Your task to perform on an android device: Open the phone app and click the voicemail tab. Image 0: 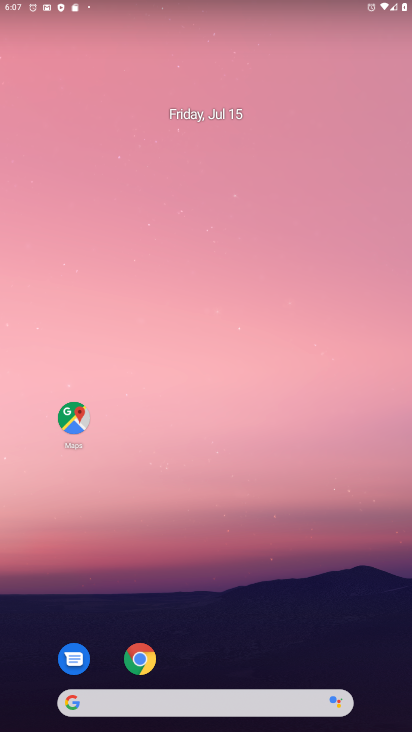
Step 0: drag from (378, 668) to (350, 61)
Your task to perform on an android device: Open the phone app and click the voicemail tab. Image 1: 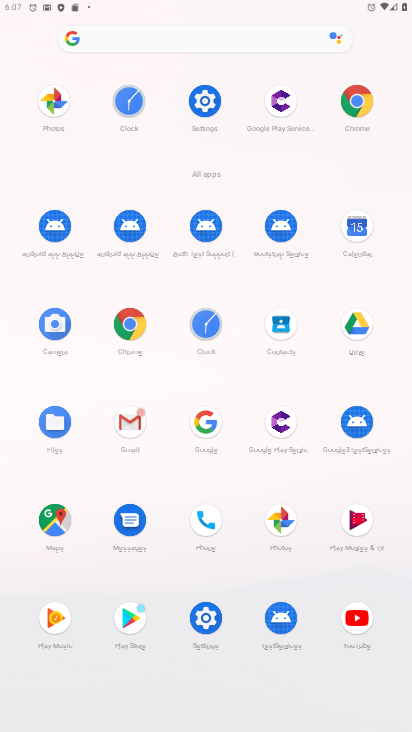
Step 1: click (205, 520)
Your task to perform on an android device: Open the phone app and click the voicemail tab. Image 2: 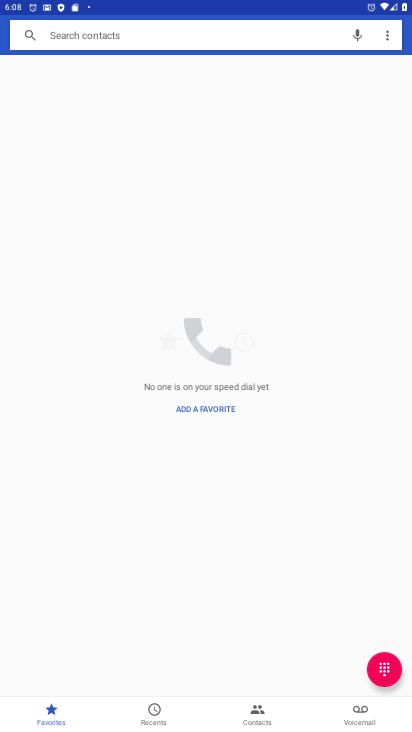
Step 2: click (361, 714)
Your task to perform on an android device: Open the phone app and click the voicemail tab. Image 3: 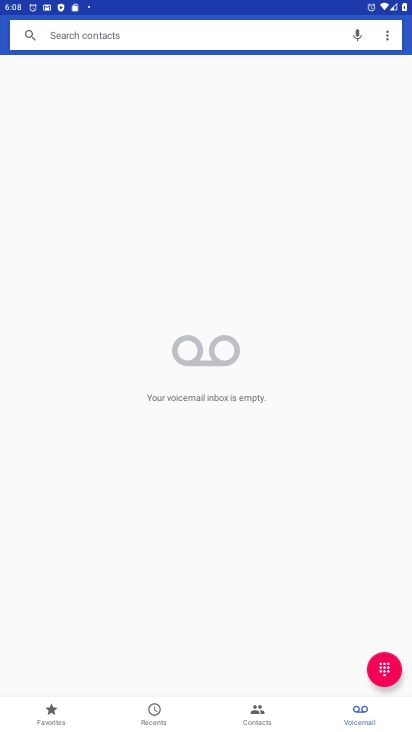
Step 3: task complete